Your task to perform on an android device: delete a single message in the gmail app Image 0: 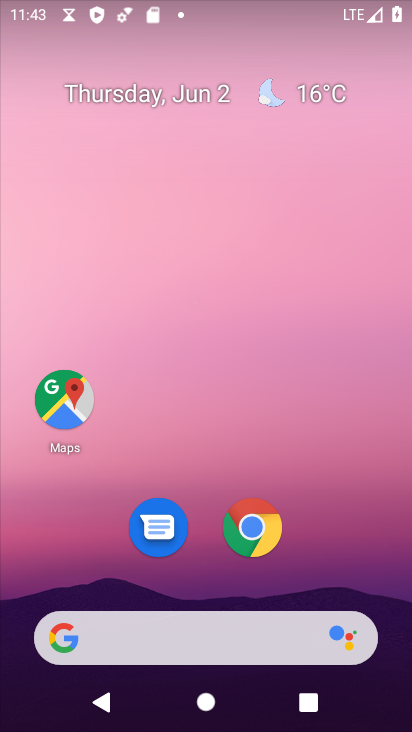
Step 0: drag from (167, 636) to (186, 214)
Your task to perform on an android device: delete a single message in the gmail app Image 1: 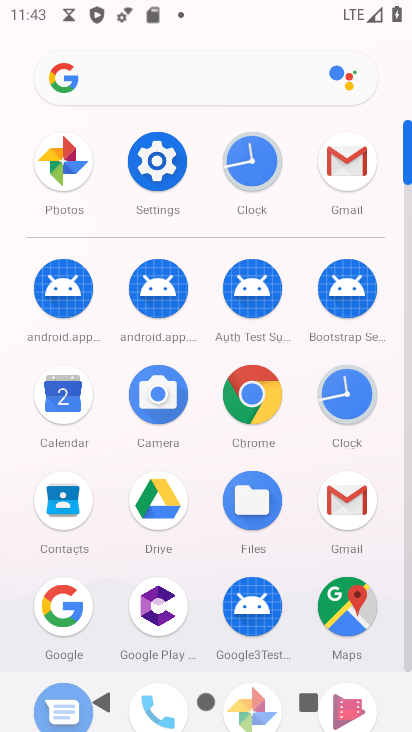
Step 1: click (341, 491)
Your task to perform on an android device: delete a single message in the gmail app Image 2: 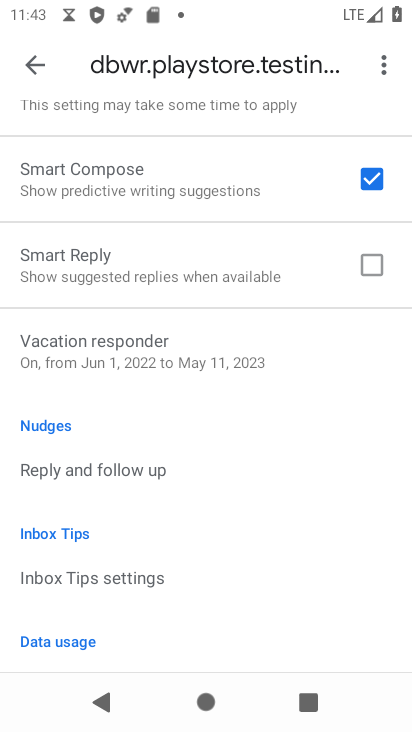
Step 2: click (40, 68)
Your task to perform on an android device: delete a single message in the gmail app Image 3: 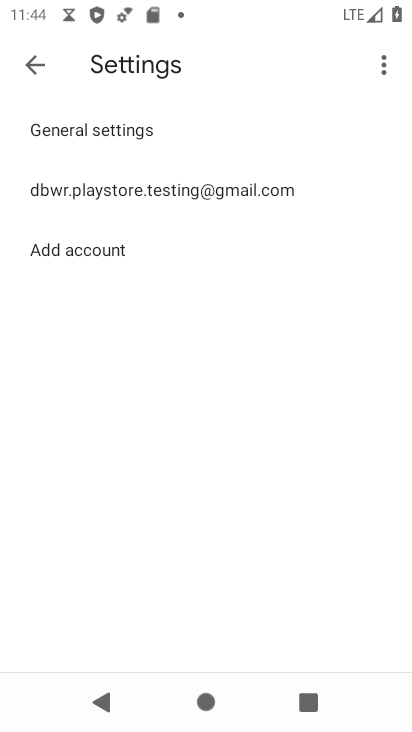
Step 3: click (28, 59)
Your task to perform on an android device: delete a single message in the gmail app Image 4: 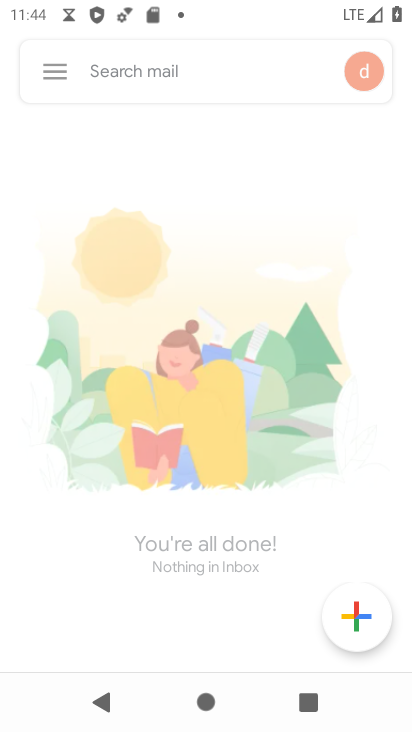
Step 4: click (44, 71)
Your task to perform on an android device: delete a single message in the gmail app Image 5: 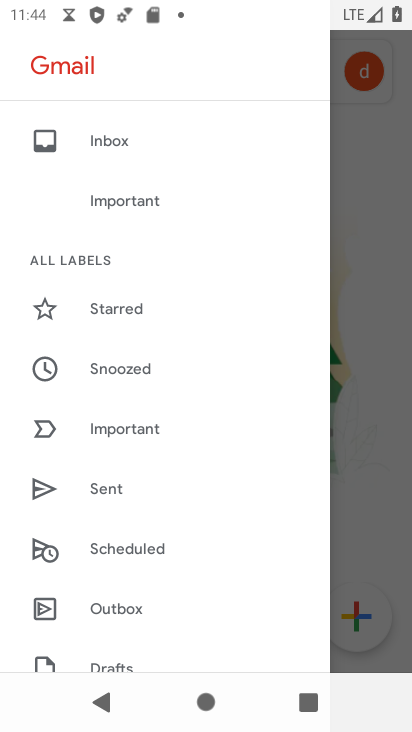
Step 5: drag from (120, 536) to (92, 69)
Your task to perform on an android device: delete a single message in the gmail app Image 6: 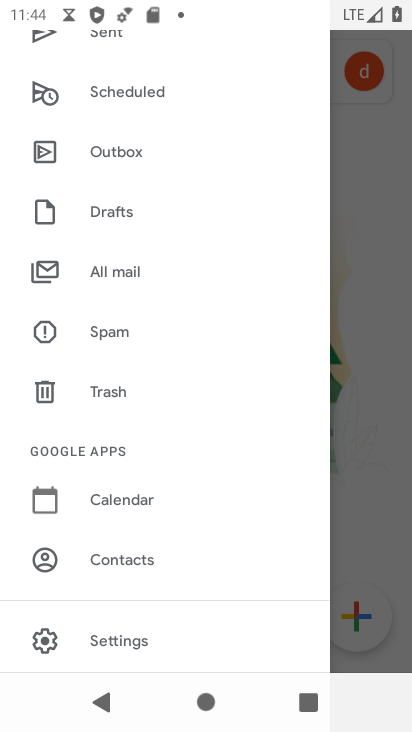
Step 6: click (112, 268)
Your task to perform on an android device: delete a single message in the gmail app Image 7: 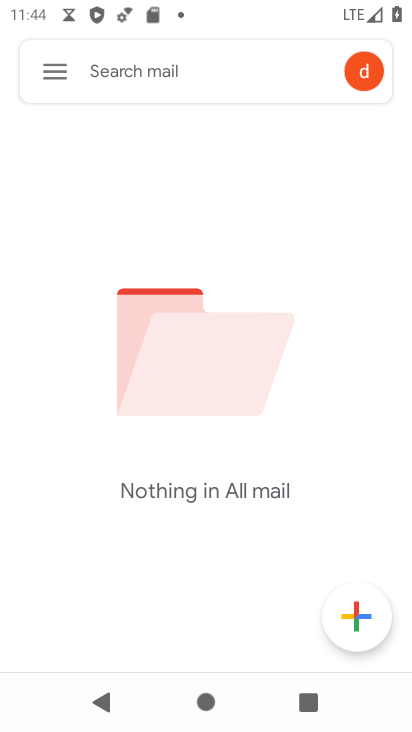
Step 7: task complete